Your task to perform on an android device: turn off notifications settings in the gmail app Image 0: 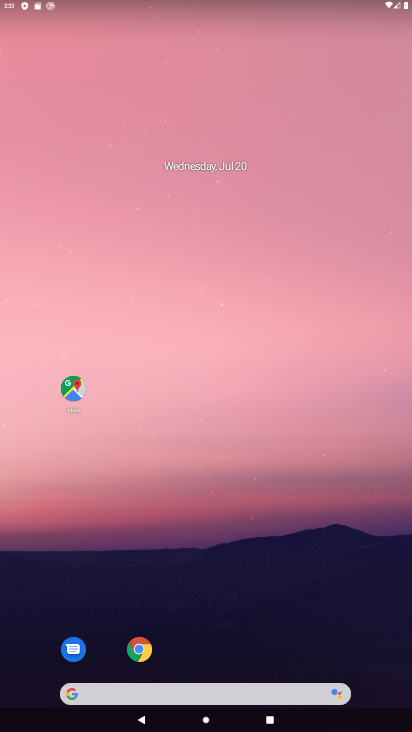
Step 0: drag from (252, 684) to (233, 154)
Your task to perform on an android device: turn off notifications settings in the gmail app Image 1: 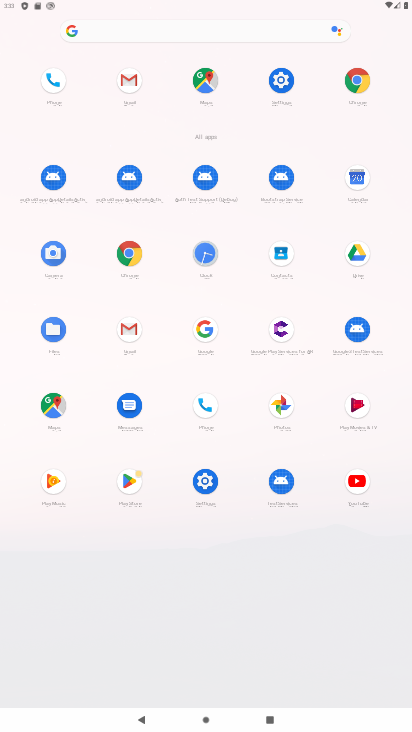
Step 1: click (124, 326)
Your task to perform on an android device: turn off notifications settings in the gmail app Image 2: 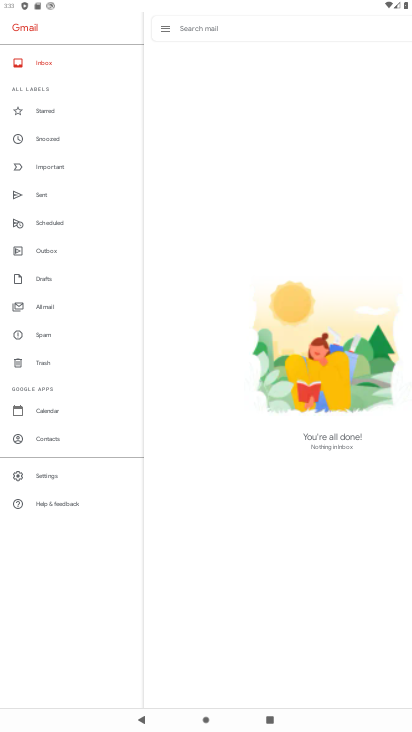
Step 2: click (44, 476)
Your task to perform on an android device: turn off notifications settings in the gmail app Image 3: 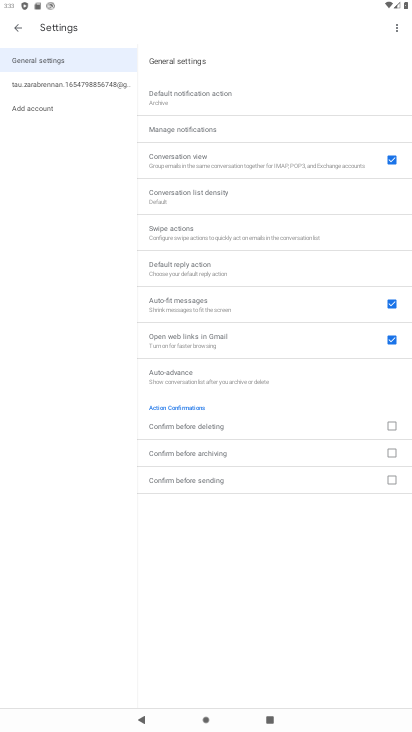
Step 3: click (188, 130)
Your task to perform on an android device: turn off notifications settings in the gmail app Image 4: 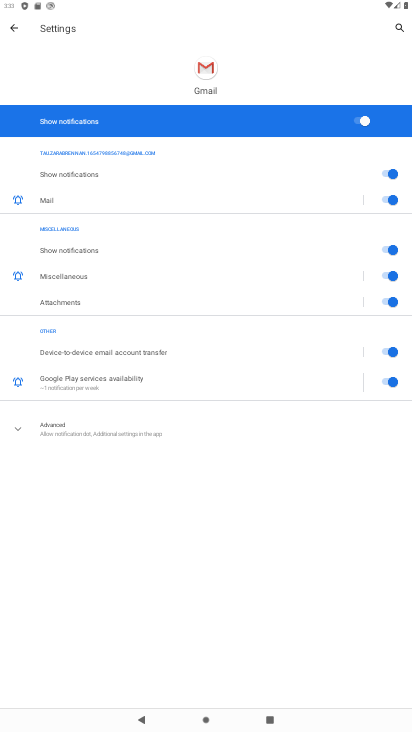
Step 4: click (354, 119)
Your task to perform on an android device: turn off notifications settings in the gmail app Image 5: 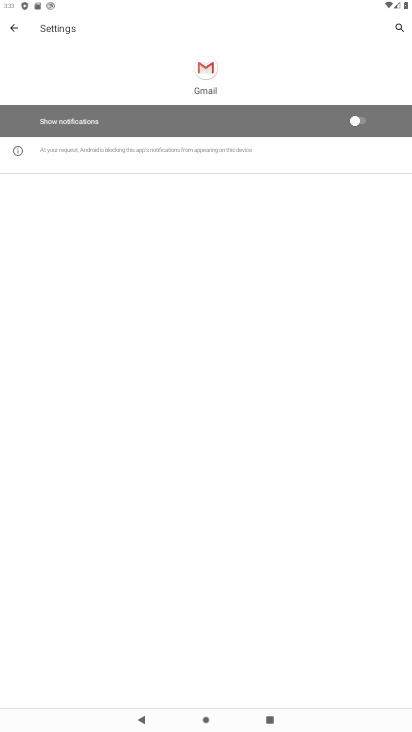
Step 5: task complete